Your task to perform on an android device: find snoozed emails in the gmail app Image 0: 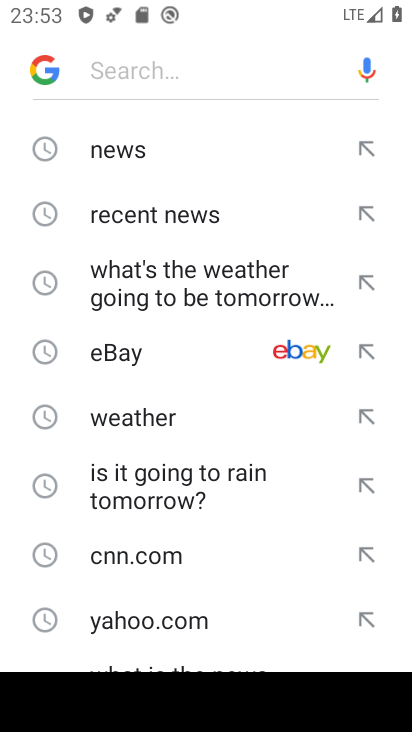
Step 0: press home button
Your task to perform on an android device: find snoozed emails in the gmail app Image 1: 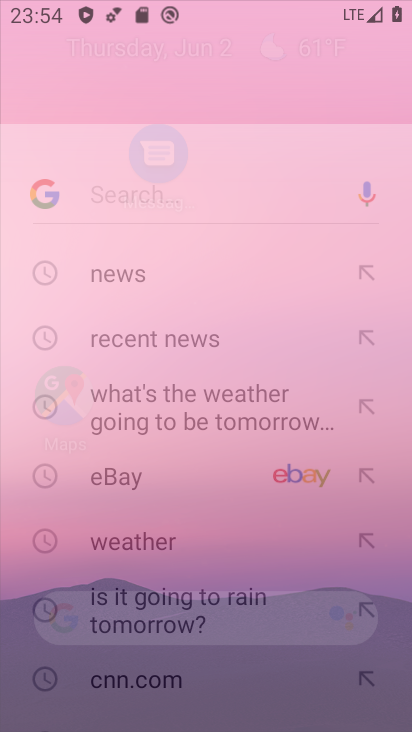
Step 1: press home button
Your task to perform on an android device: find snoozed emails in the gmail app Image 2: 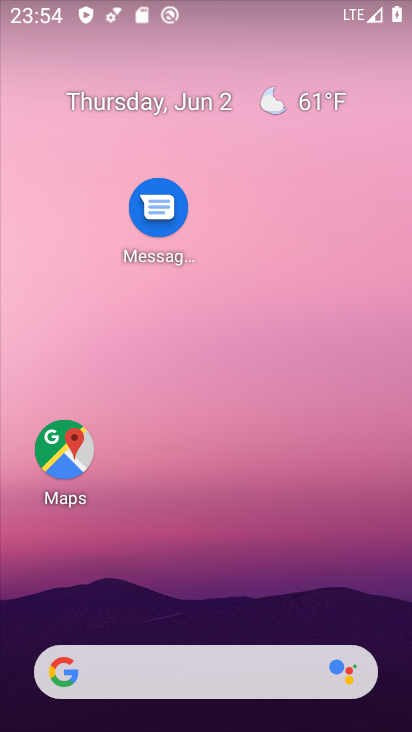
Step 2: drag from (202, 631) to (142, 14)
Your task to perform on an android device: find snoozed emails in the gmail app Image 3: 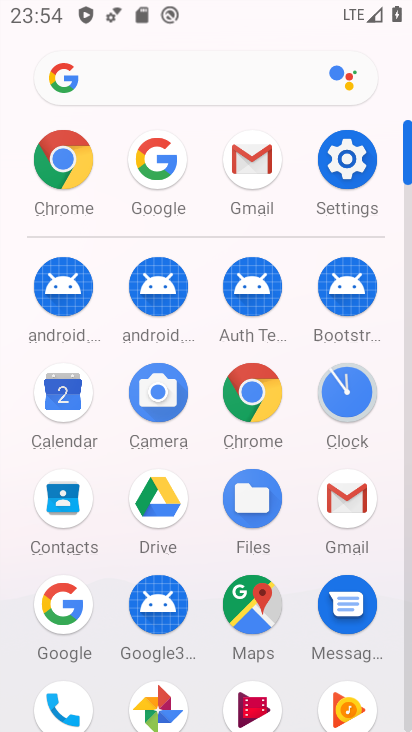
Step 3: click (363, 501)
Your task to perform on an android device: find snoozed emails in the gmail app Image 4: 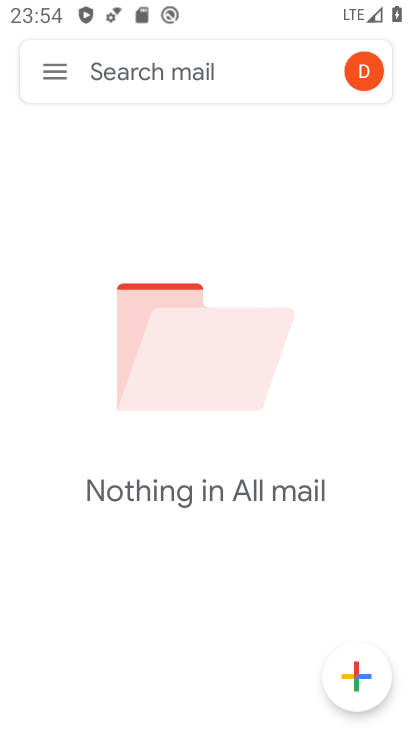
Step 4: click (59, 79)
Your task to perform on an android device: find snoozed emails in the gmail app Image 5: 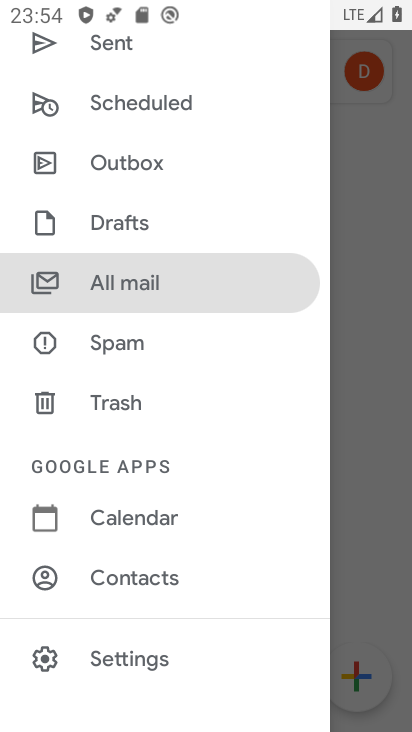
Step 5: drag from (141, 198) to (100, 628)
Your task to perform on an android device: find snoozed emails in the gmail app Image 6: 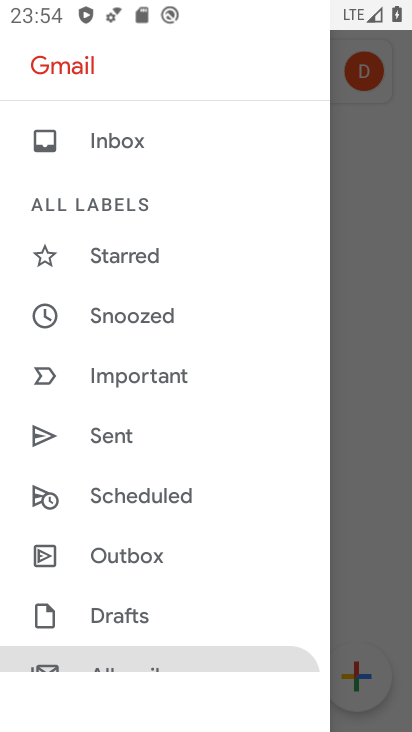
Step 6: click (151, 325)
Your task to perform on an android device: find snoozed emails in the gmail app Image 7: 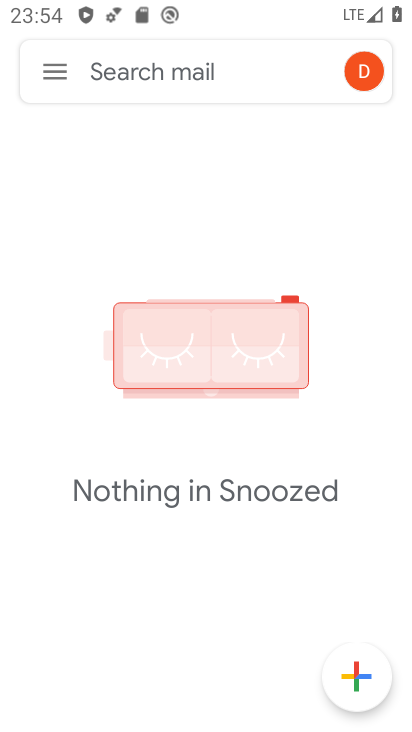
Step 7: task complete